Your task to perform on an android device: turn off improve location accuracy Image 0: 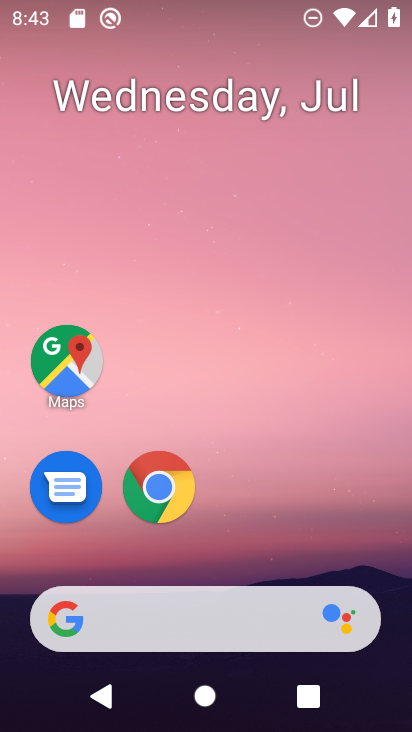
Step 0: drag from (379, 527) to (379, 65)
Your task to perform on an android device: turn off improve location accuracy Image 1: 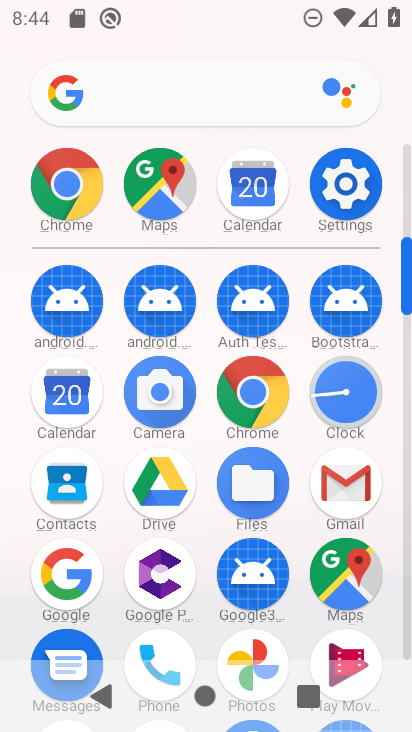
Step 1: click (370, 185)
Your task to perform on an android device: turn off improve location accuracy Image 2: 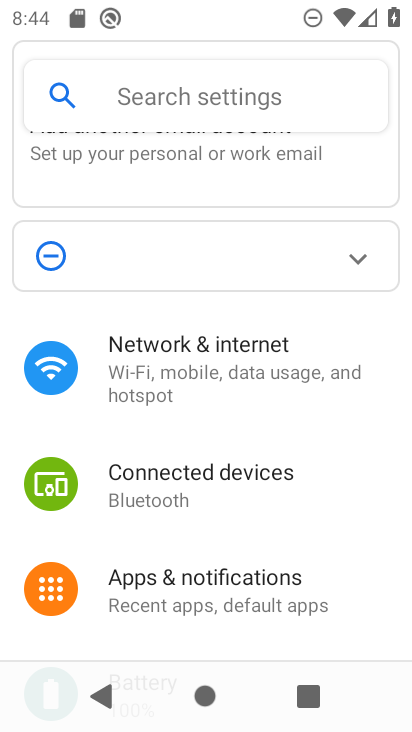
Step 2: drag from (343, 494) to (365, 366)
Your task to perform on an android device: turn off improve location accuracy Image 3: 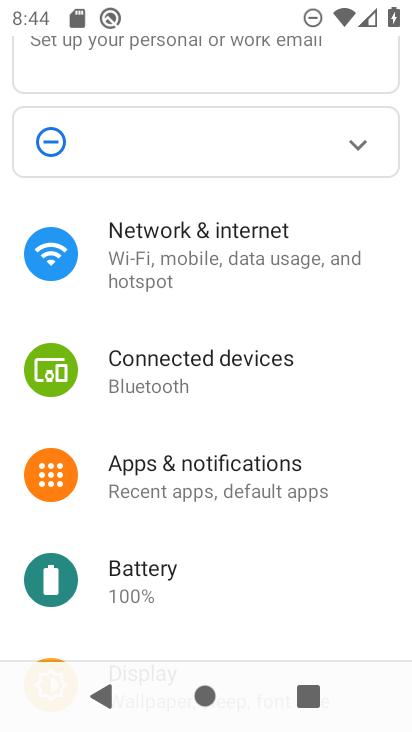
Step 3: drag from (363, 453) to (360, 263)
Your task to perform on an android device: turn off improve location accuracy Image 4: 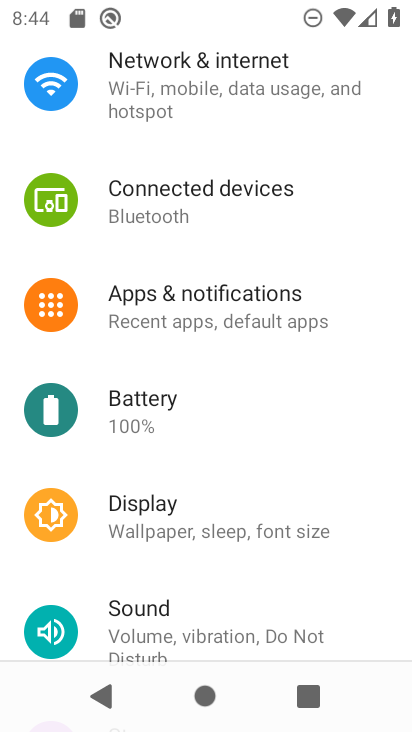
Step 4: drag from (351, 440) to (387, 298)
Your task to perform on an android device: turn off improve location accuracy Image 5: 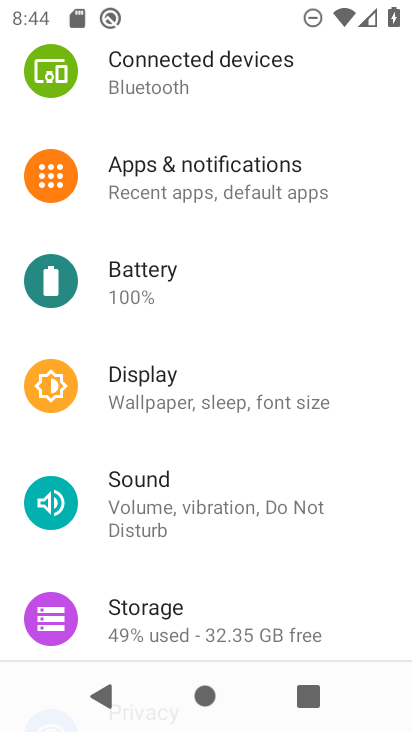
Step 5: drag from (360, 444) to (362, 288)
Your task to perform on an android device: turn off improve location accuracy Image 6: 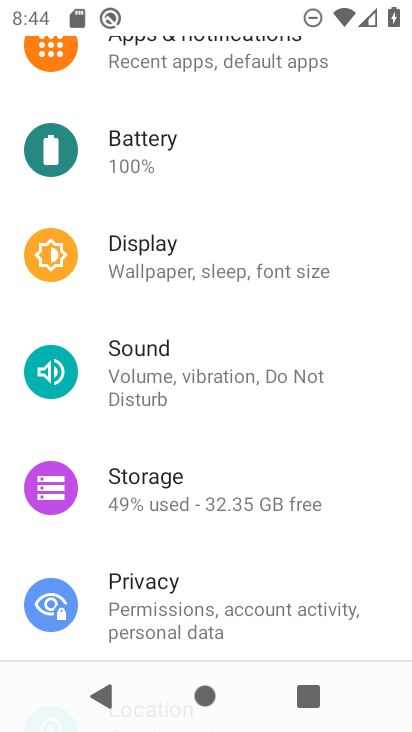
Step 6: drag from (340, 439) to (365, 212)
Your task to perform on an android device: turn off improve location accuracy Image 7: 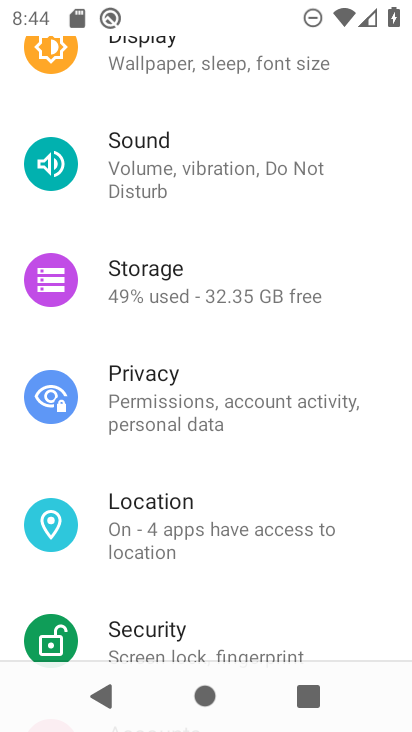
Step 7: drag from (339, 468) to (348, 320)
Your task to perform on an android device: turn off improve location accuracy Image 8: 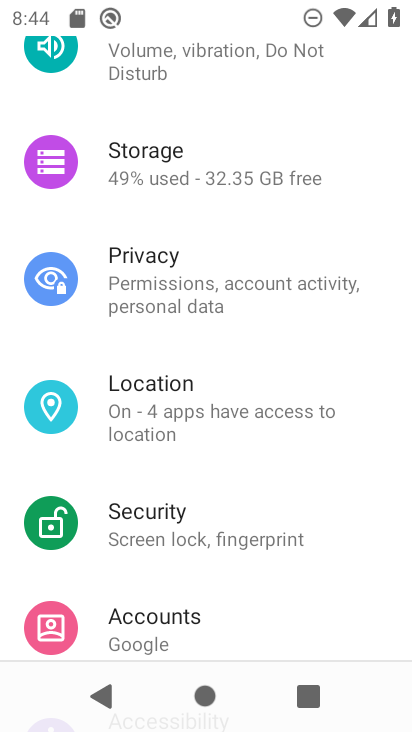
Step 8: click (328, 428)
Your task to perform on an android device: turn off improve location accuracy Image 9: 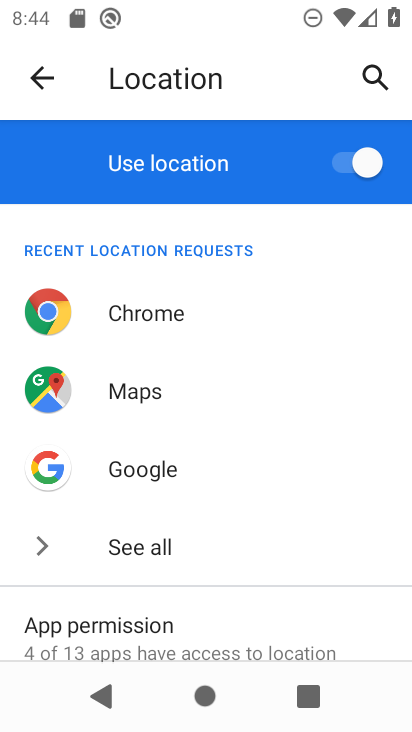
Step 9: drag from (308, 501) to (321, 317)
Your task to perform on an android device: turn off improve location accuracy Image 10: 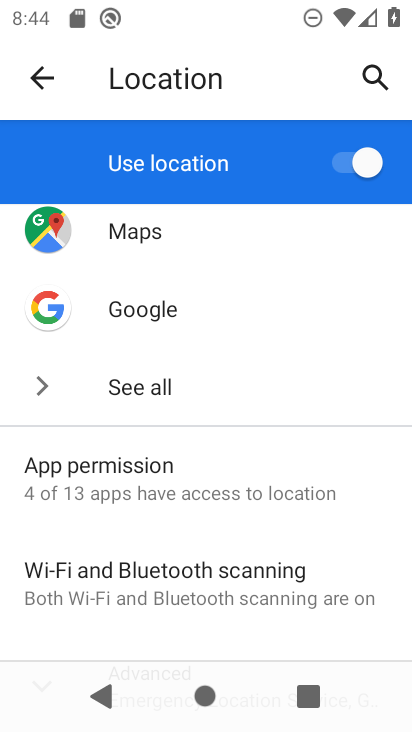
Step 10: drag from (345, 527) to (367, 378)
Your task to perform on an android device: turn off improve location accuracy Image 11: 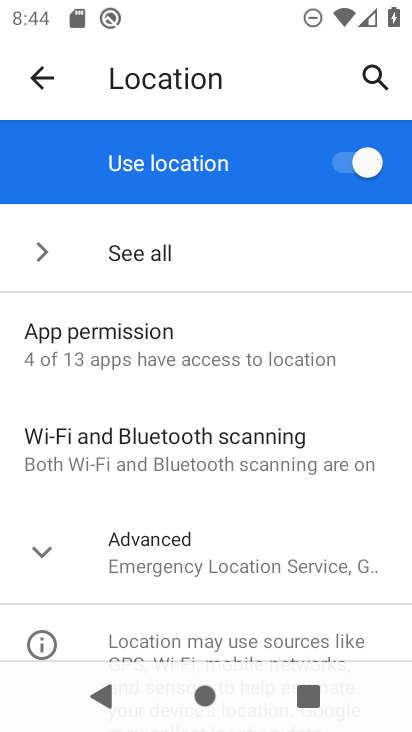
Step 11: click (333, 548)
Your task to perform on an android device: turn off improve location accuracy Image 12: 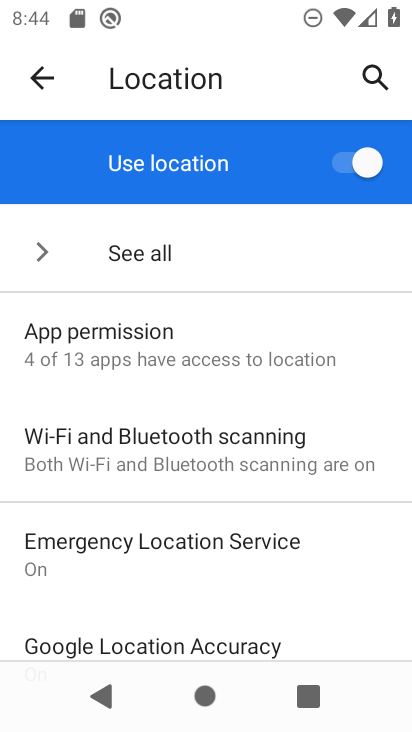
Step 12: drag from (334, 577) to (365, 406)
Your task to perform on an android device: turn off improve location accuracy Image 13: 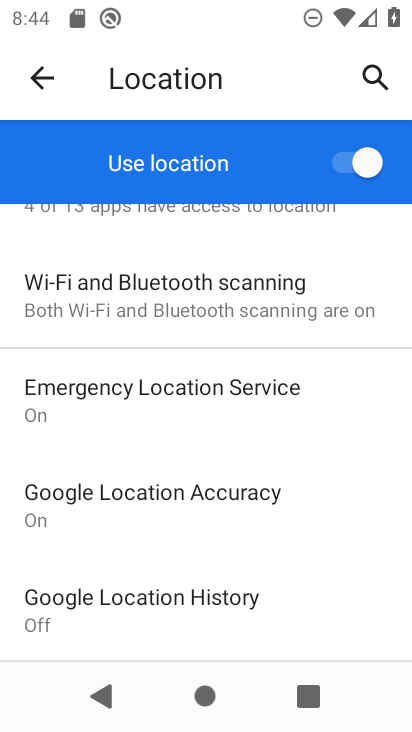
Step 13: click (267, 509)
Your task to perform on an android device: turn off improve location accuracy Image 14: 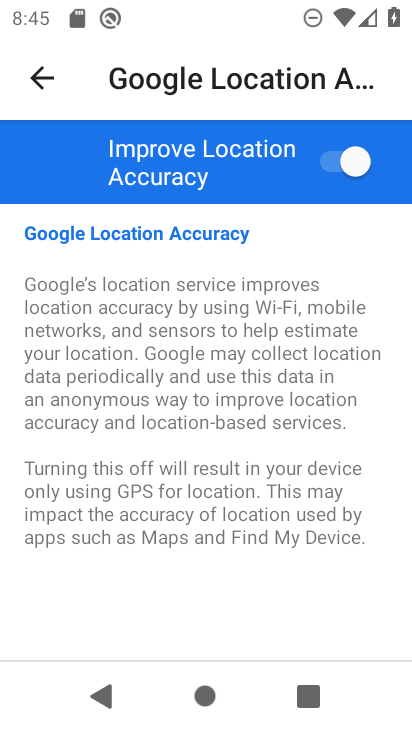
Step 14: click (343, 166)
Your task to perform on an android device: turn off improve location accuracy Image 15: 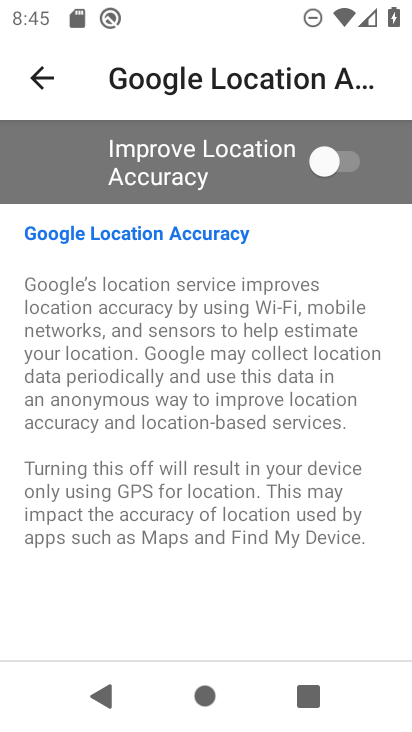
Step 15: task complete